Your task to perform on an android device: toggle priority inbox in the gmail app Image 0: 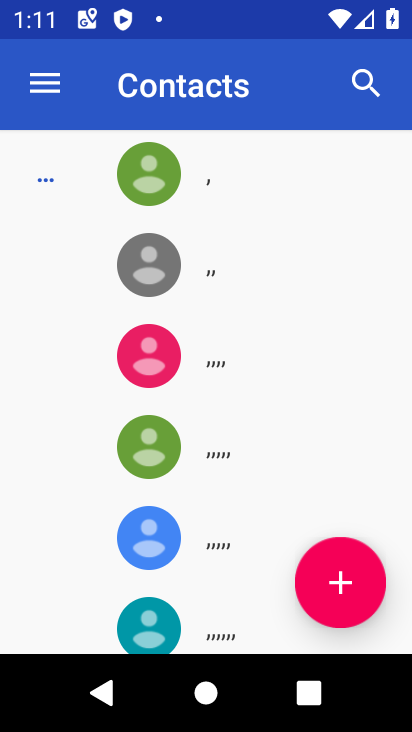
Step 0: press home button
Your task to perform on an android device: toggle priority inbox in the gmail app Image 1: 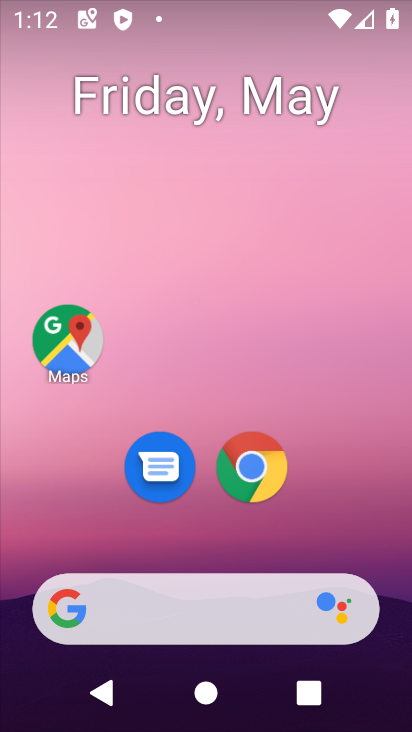
Step 1: drag from (321, 518) to (249, 138)
Your task to perform on an android device: toggle priority inbox in the gmail app Image 2: 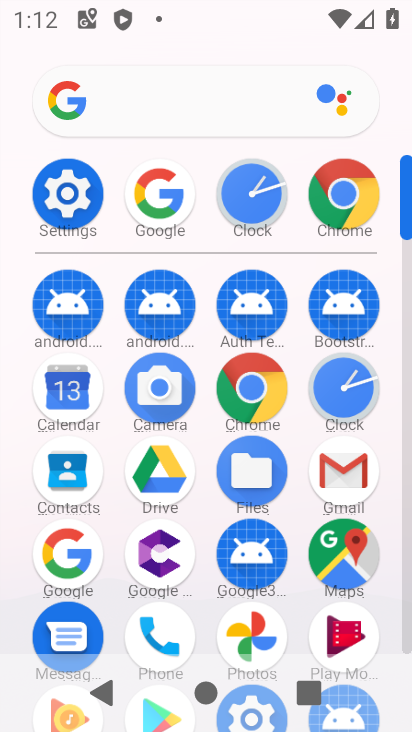
Step 2: click (337, 471)
Your task to perform on an android device: toggle priority inbox in the gmail app Image 3: 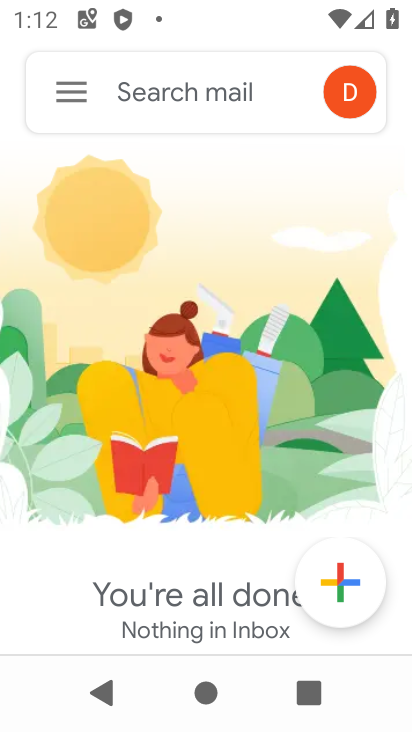
Step 3: click (71, 98)
Your task to perform on an android device: toggle priority inbox in the gmail app Image 4: 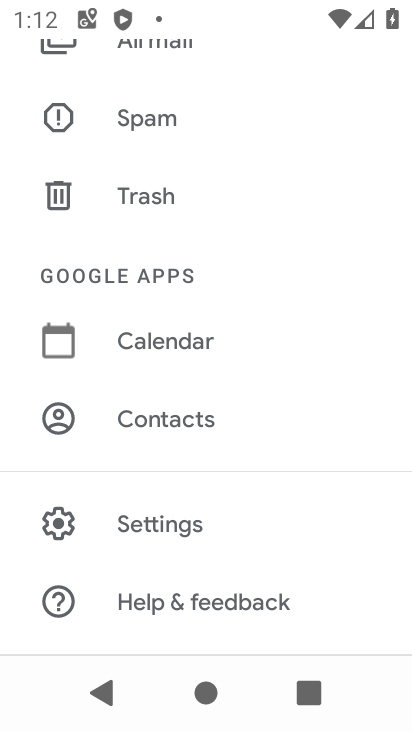
Step 4: click (167, 522)
Your task to perform on an android device: toggle priority inbox in the gmail app Image 5: 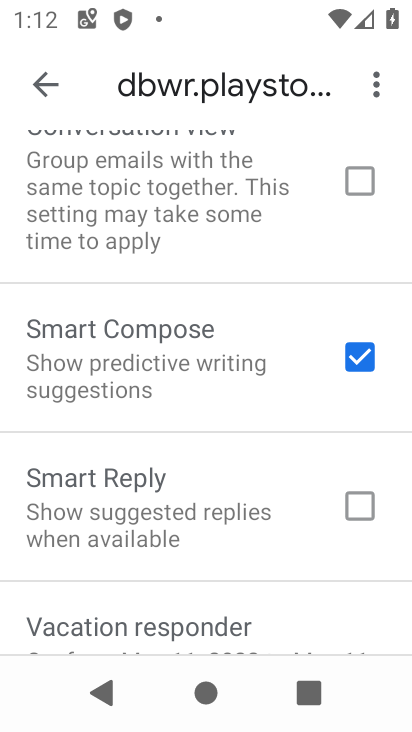
Step 5: drag from (187, 274) to (190, 444)
Your task to perform on an android device: toggle priority inbox in the gmail app Image 6: 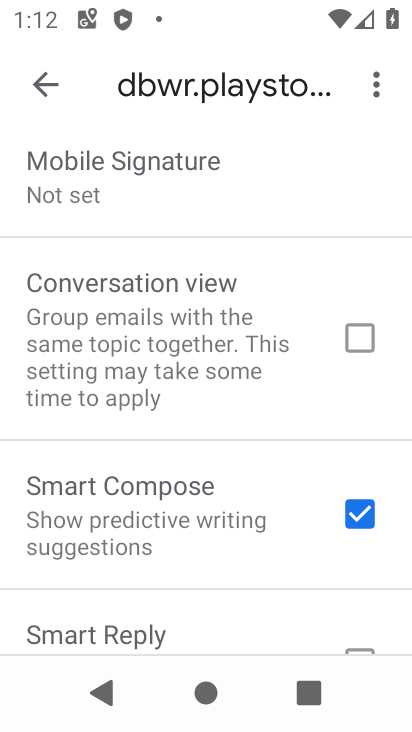
Step 6: drag from (190, 187) to (187, 437)
Your task to perform on an android device: toggle priority inbox in the gmail app Image 7: 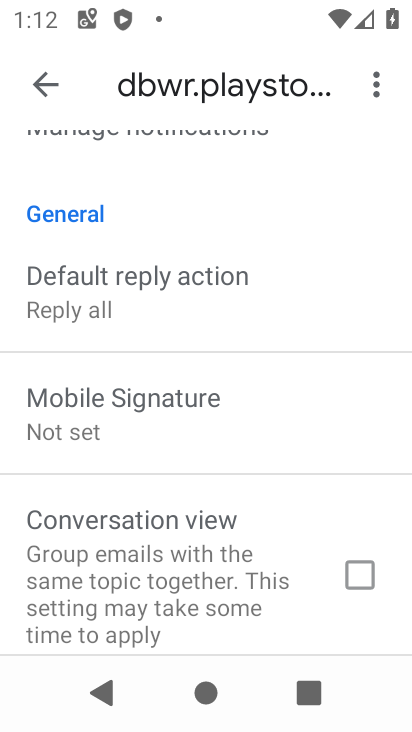
Step 7: drag from (184, 201) to (188, 476)
Your task to perform on an android device: toggle priority inbox in the gmail app Image 8: 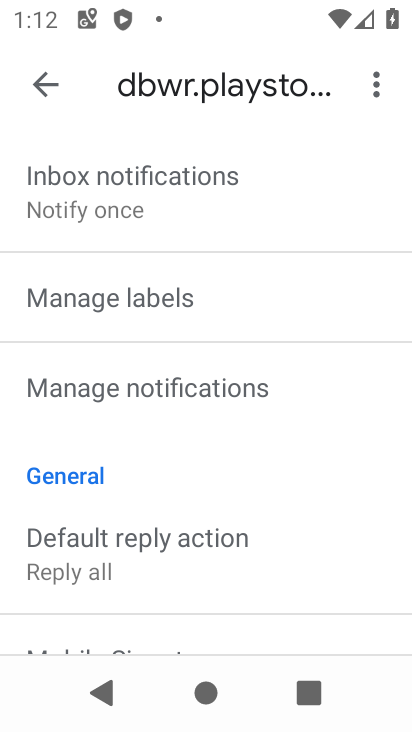
Step 8: drag from (243, 207) to (203, 429)
Your task to perform on an android device: toggle priority inbox in the gmail app Image 9: 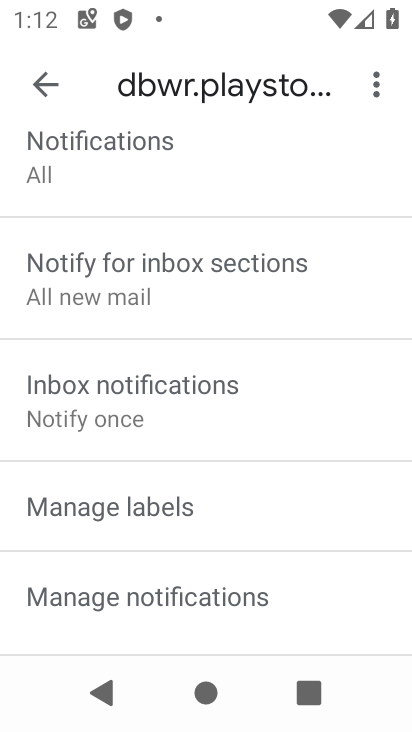
Step 9: drag from (180, 205) to (166, 420)
Your task to perform on an android device: toggle priority inbox in the gmail app Image 10: 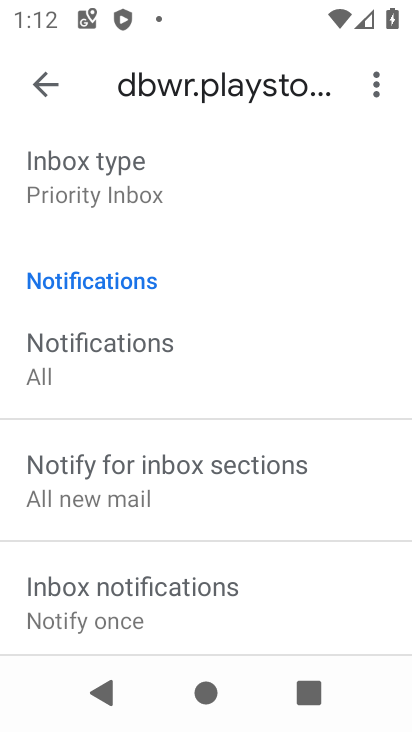
Step 10: click (108, 186)
Your task to perform on an android device: toggle priority inbox in the gmail app Image 11: 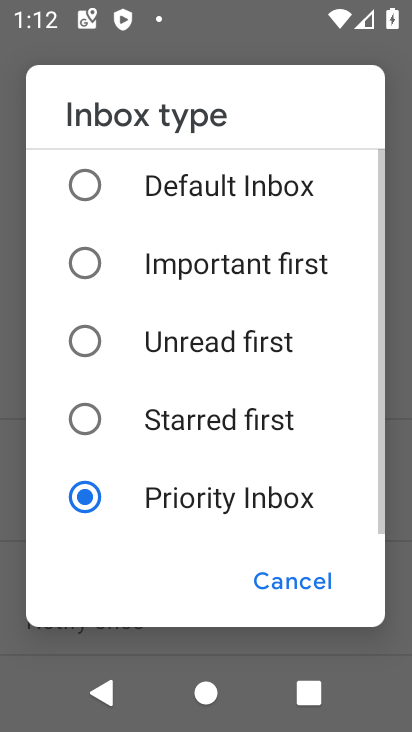
Step 11: click (94, 175)
Your task to perform on an android device: toggle priority inbox in the gmail app Image 12: 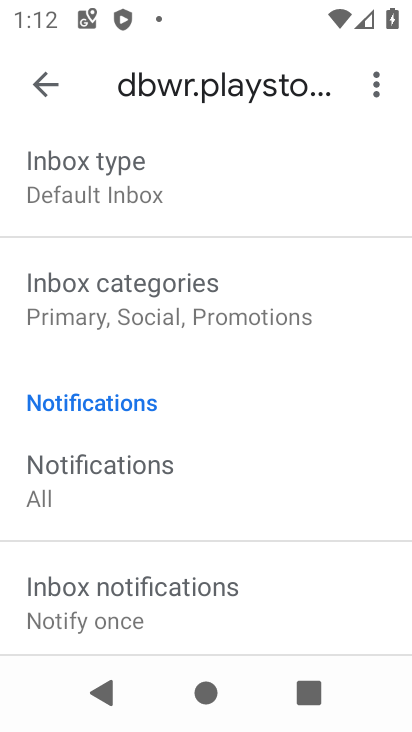
Step 12: task complete